Your task to perform on an android device: turn on translation in the chrome app Image 0: 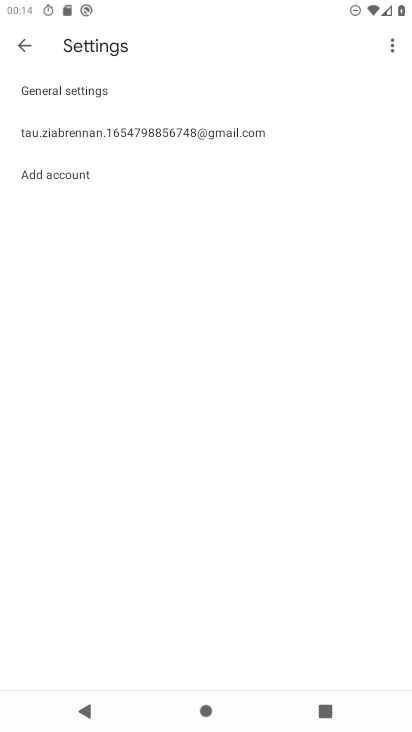
Step 0: press home button
Your task to perform on an android device: turn on translation in the chrome app Image 1: 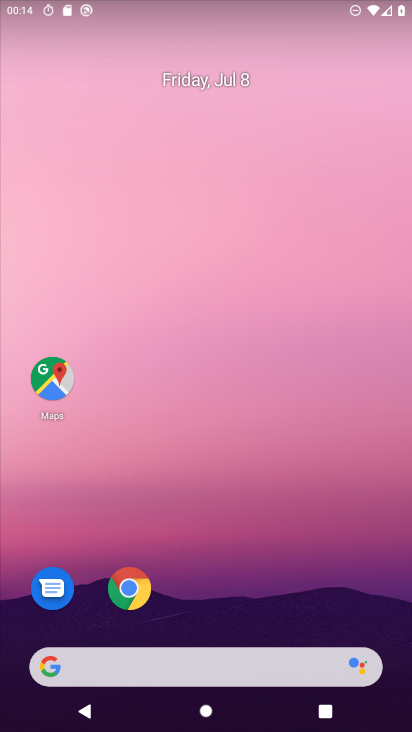
Step 1: click (125, 581)
Your task to perform on an android device: turn on translation in the chrome app Image 2: 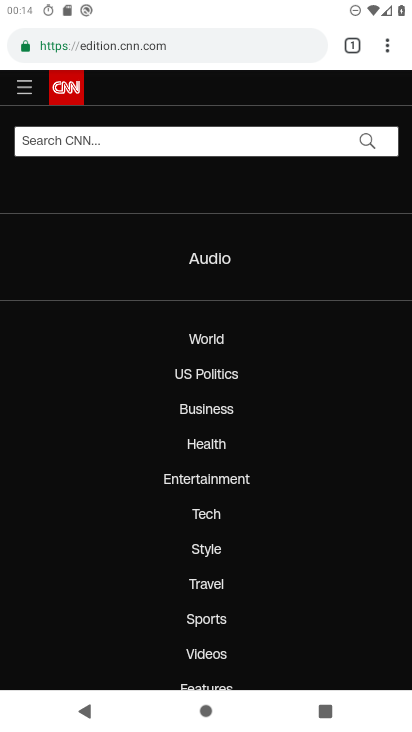
Step 2: click (393, 42)
Your task to perform on an android device: turn on translation in the chrome app Image 3: 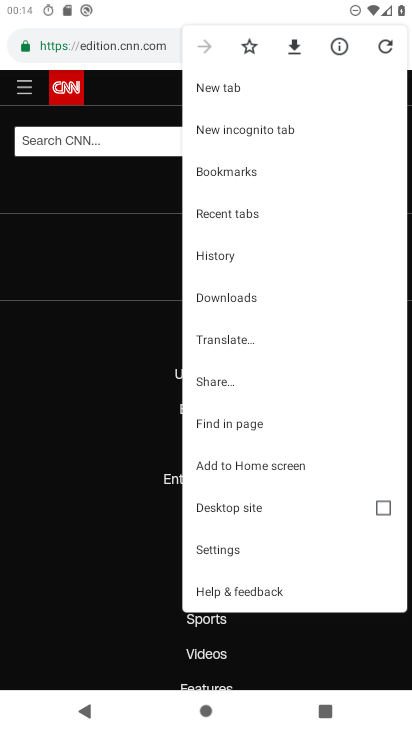
Step 3: click (231, 546)
Your task to perform on an android device: turn on translation in the chrome app Image 4: 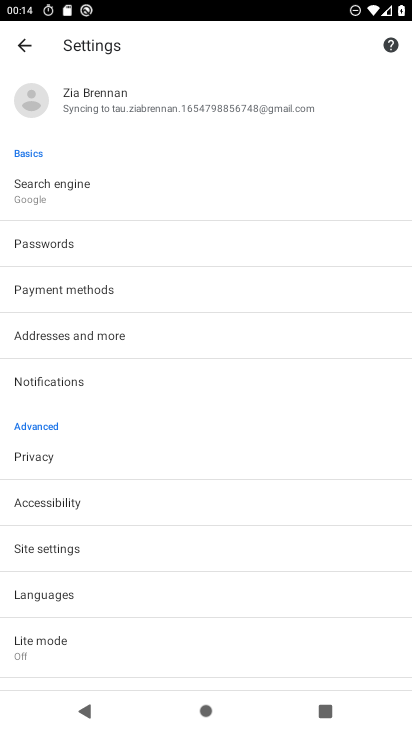
Step 4: click (36, 593)
Your task to perform on an android device: turn on translation in the chrome app Image 5: 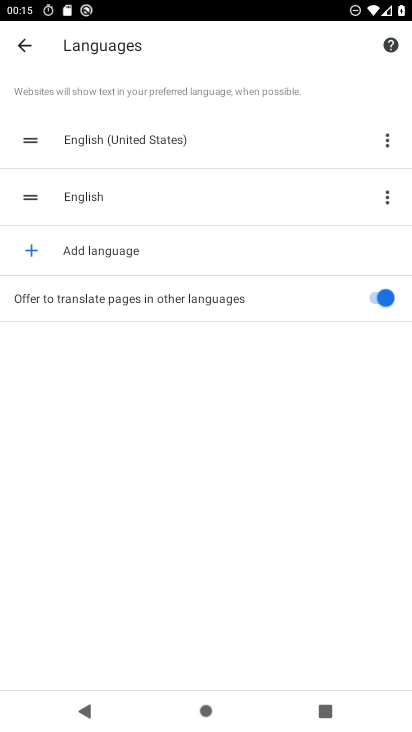
Step 5: task complete